Your task to perform on an android device: empty trash in google photos Image 0: 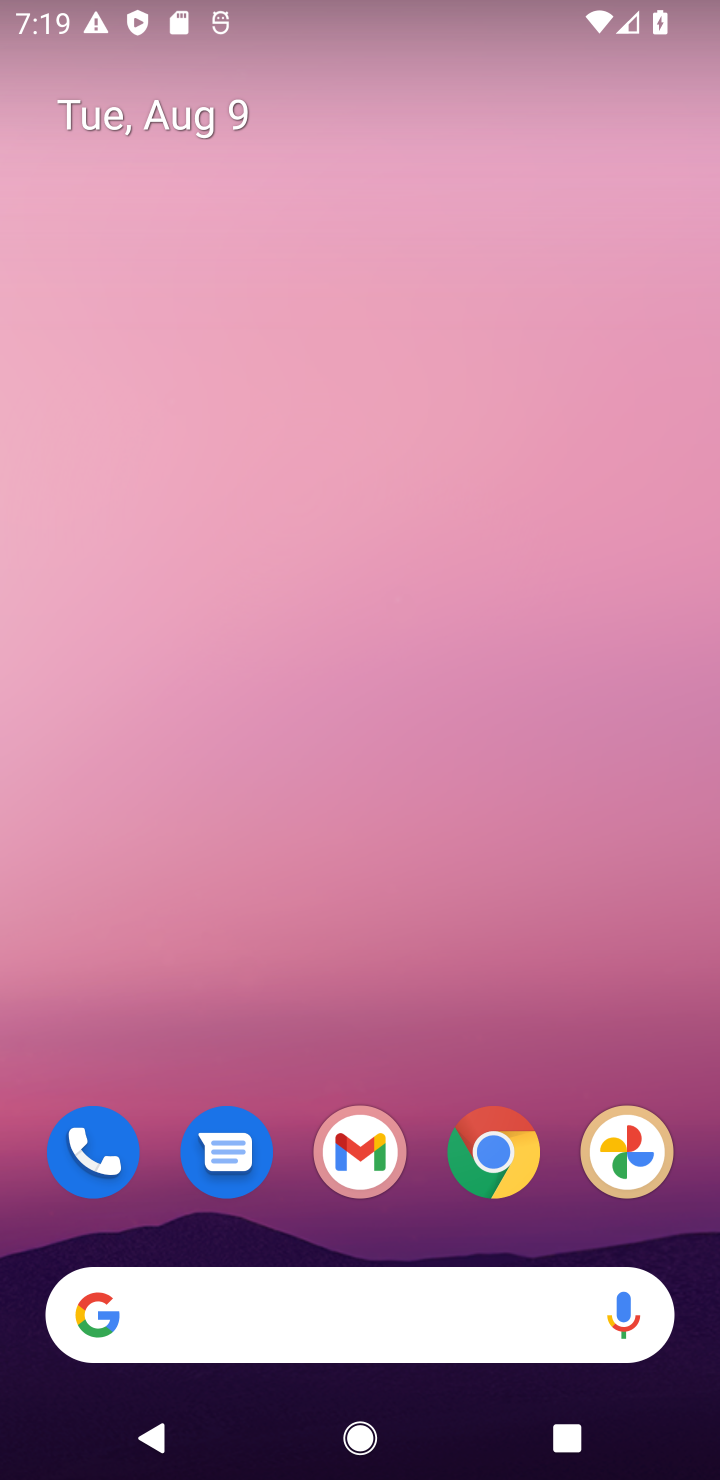
Step 0: click (626, 1149)
Your task to perform on an android device: empty trash in google photos Image 1: 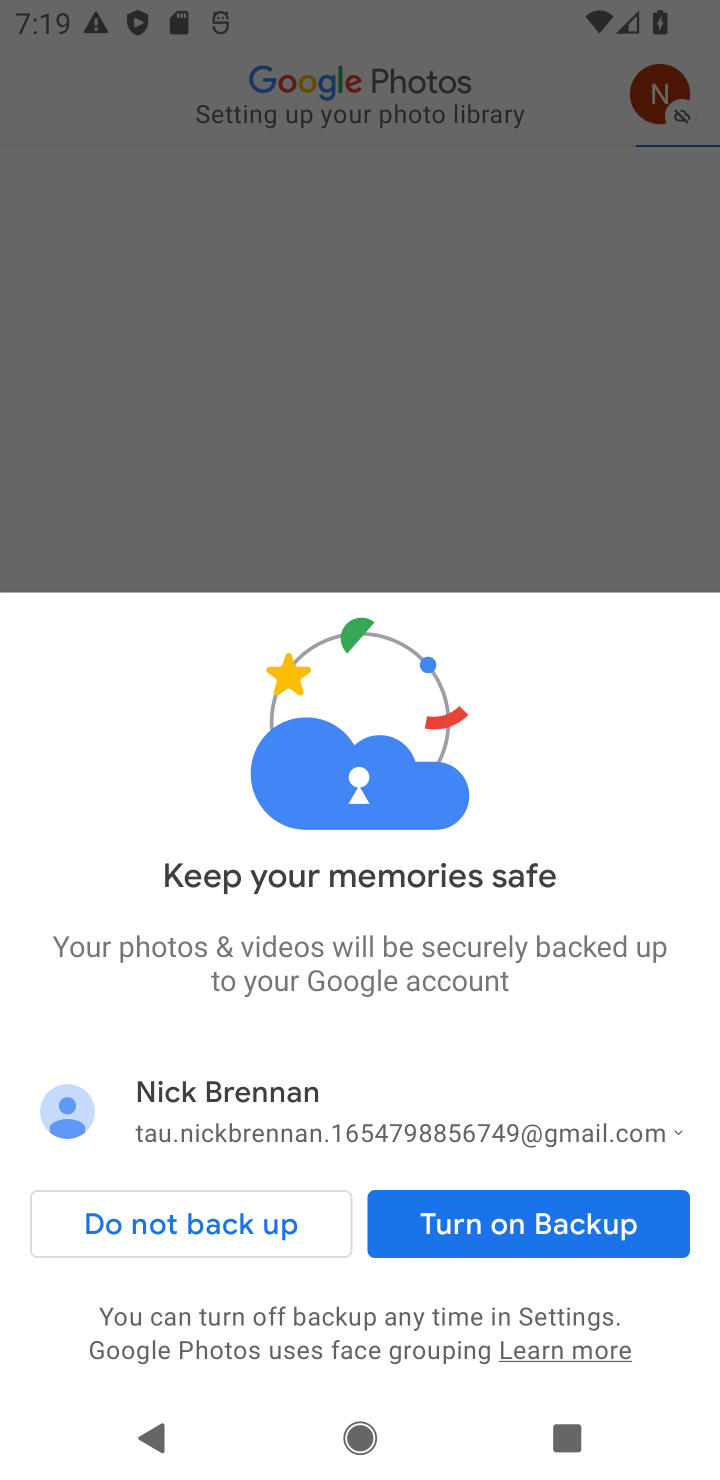
Step 1: click (282, 1211)
Your task to perform on an android device: empty trash in google photos Image 2: 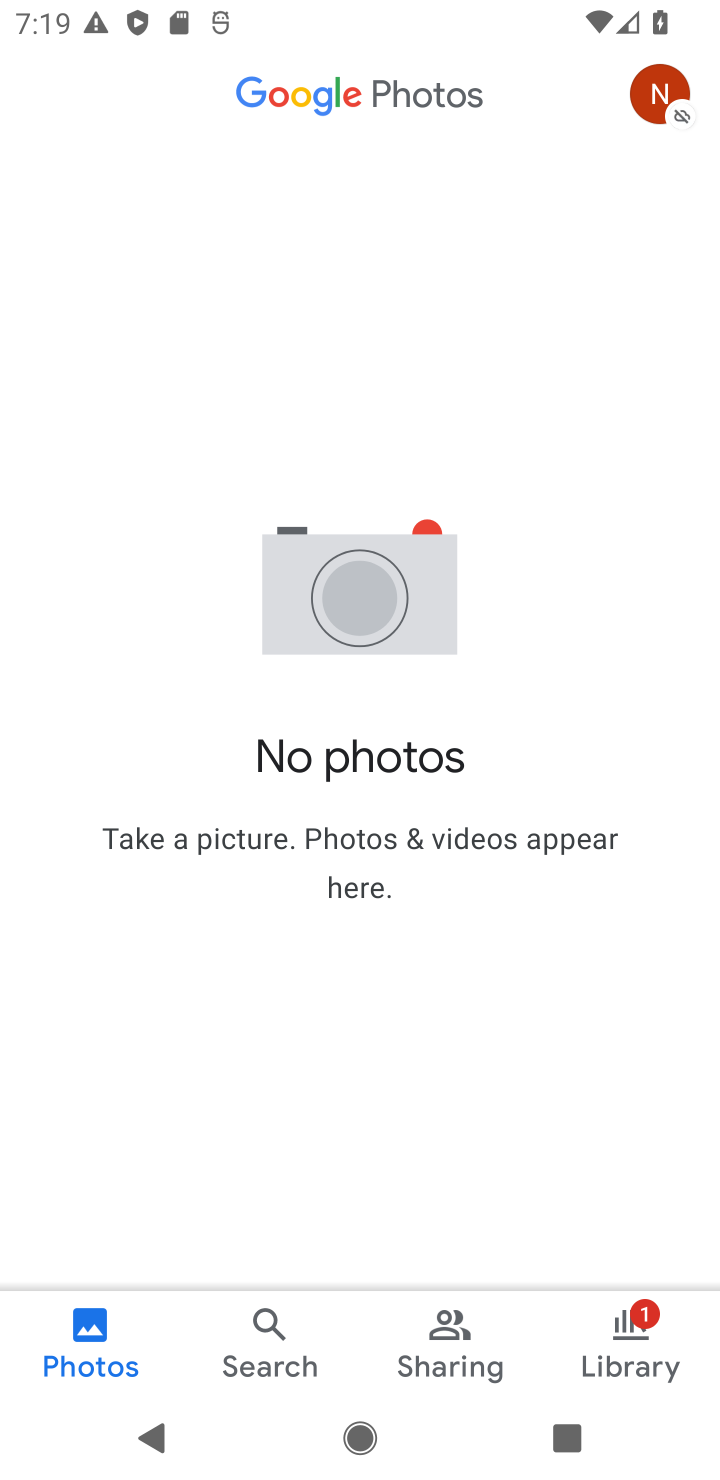
Step 2: click (661, 87)
Your task to perform on an android device: empty trash in google photos Image 3: 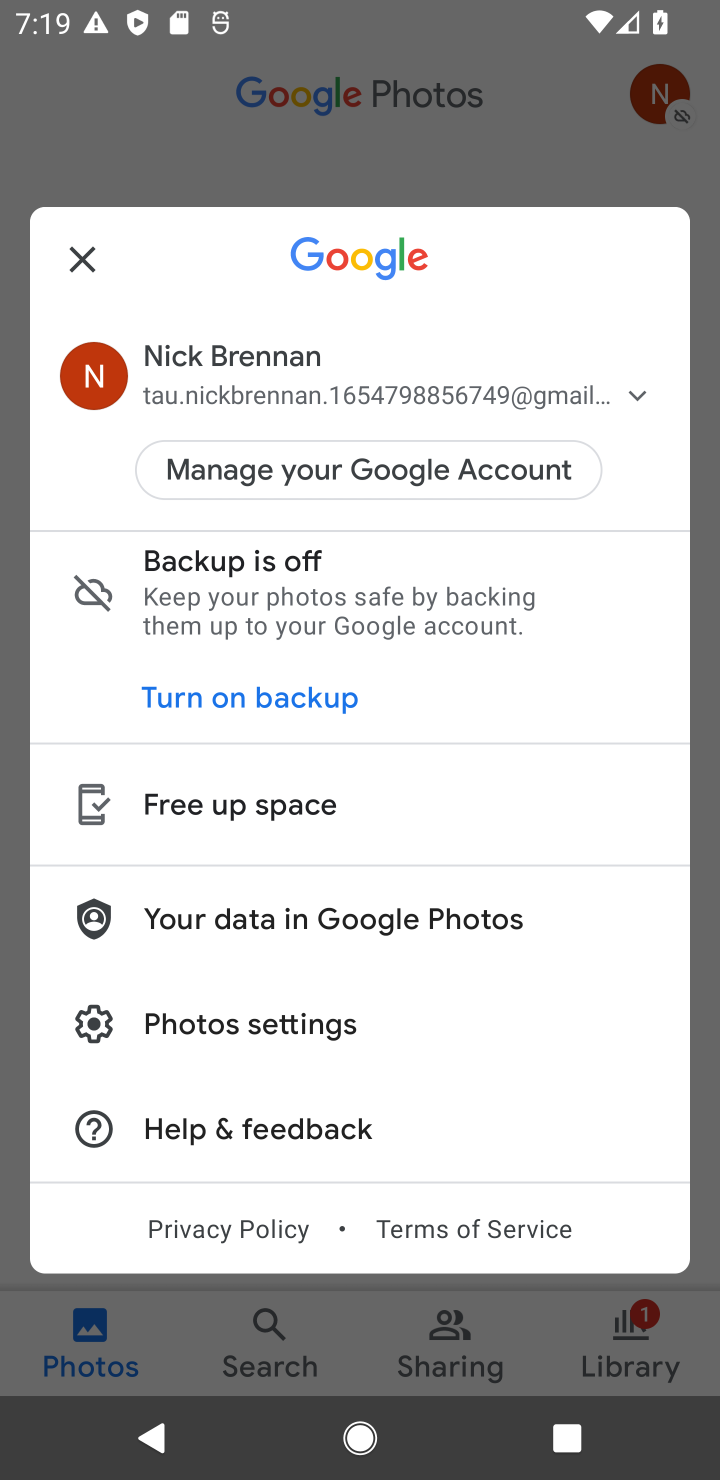
Step 3: task complete